Your task to perform on an android device: Open battery settings Image 0: 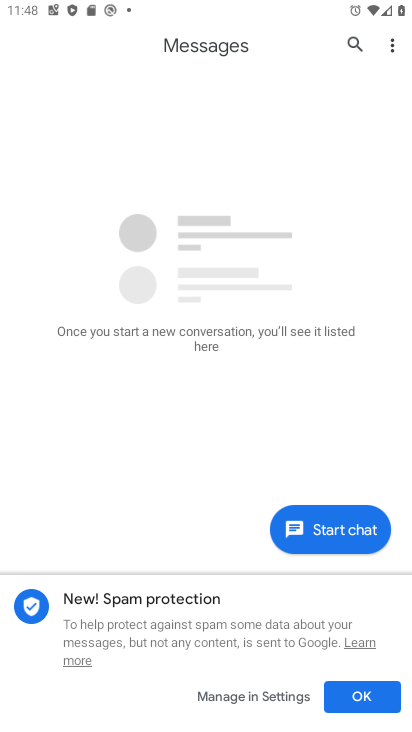
Step 0: press home button
Your task to perform on an android device: Open battery settings Image 1: 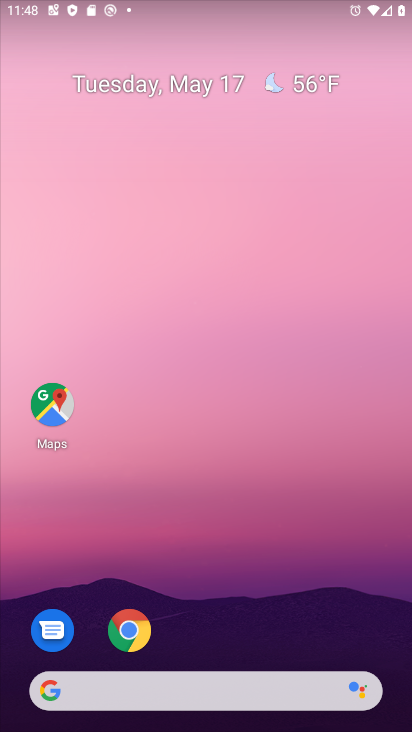
Step 1: drag from (369, 483) to (359, 252)
Your task to perform on an android device: Open battery settings Image 2: 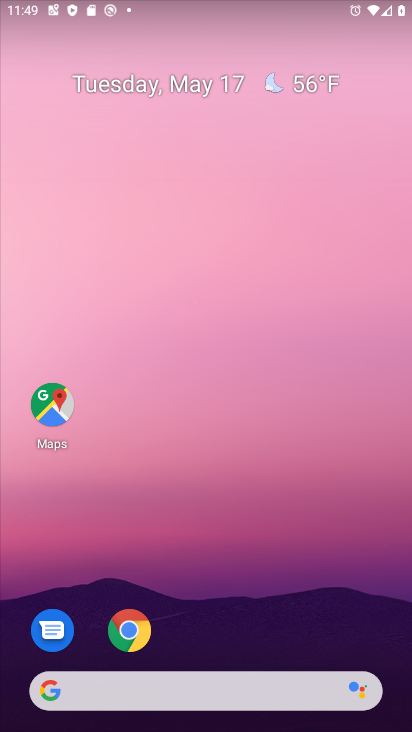
Step 2: drag from (332, 568) to (334, 193)
Your task to perform on an android device: Open battery settings Image 3: 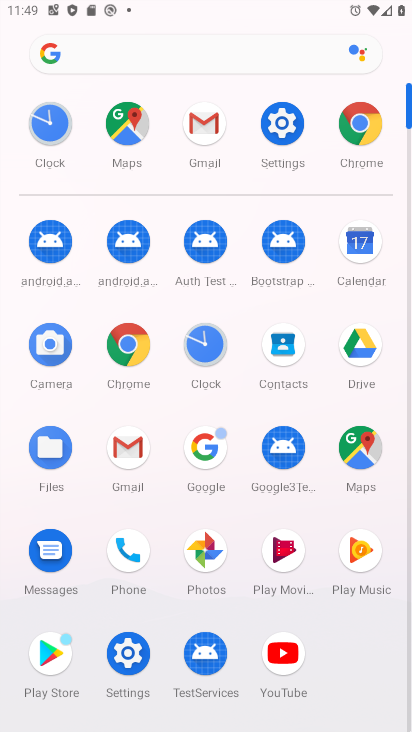
Step 3: click (279, 127)
Your task to perform on an android device: Open battery settings Image 4: 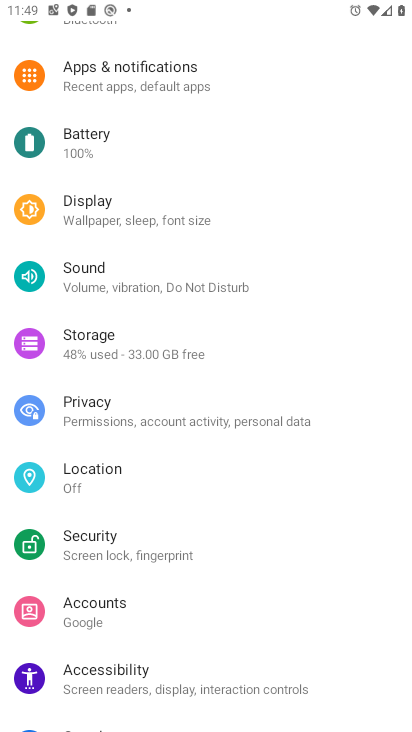
Step 4: click (147, 147)
Your task to perform on an android device: Open battery settings Image 5: 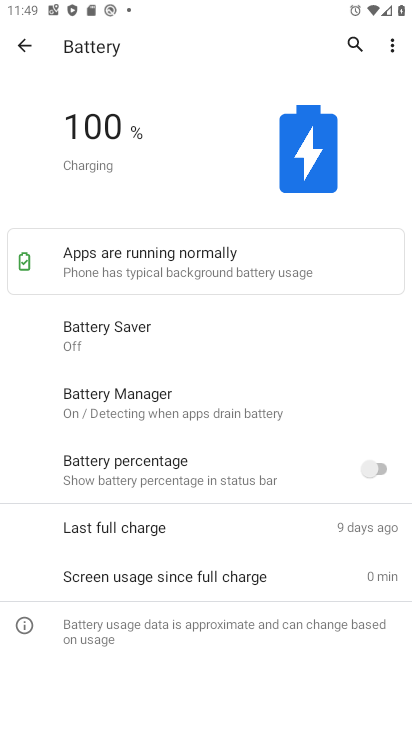
Step 5: task complete